Your task to perform on an android device: open sync settings in chrome Image 0: 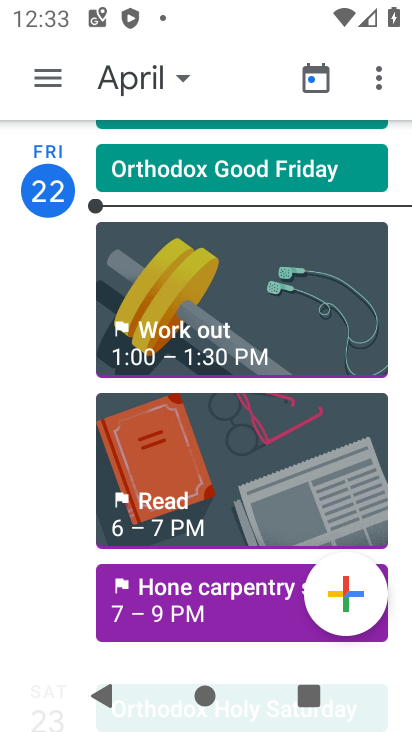
Step 0: press home button
Your task to perform on an android device: open sync settings in chrome Image 1: 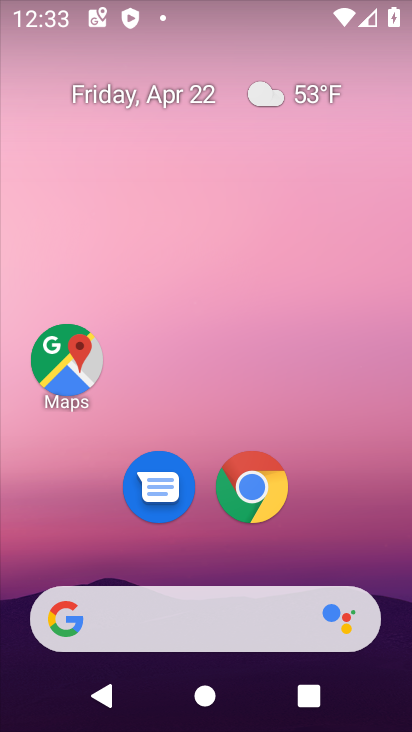
Step 1: click (247, 491)
Your task to perform on an android device: open sync settings in chrome Image 2: 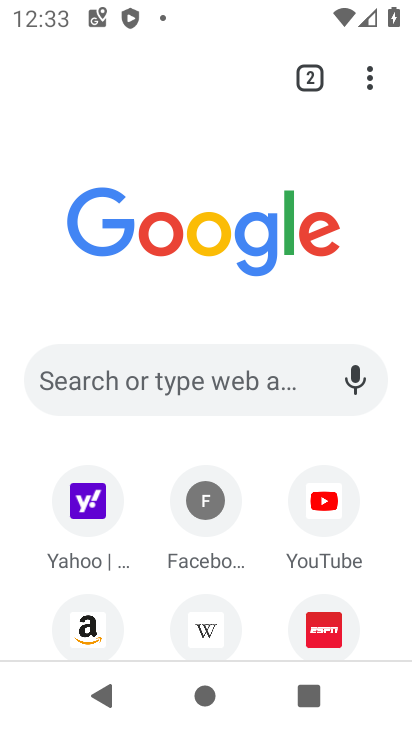
Step 2: drag from (364, 73) to (260, 548)
Your task to perform on an android device: open sync settings in chrome Image 3: 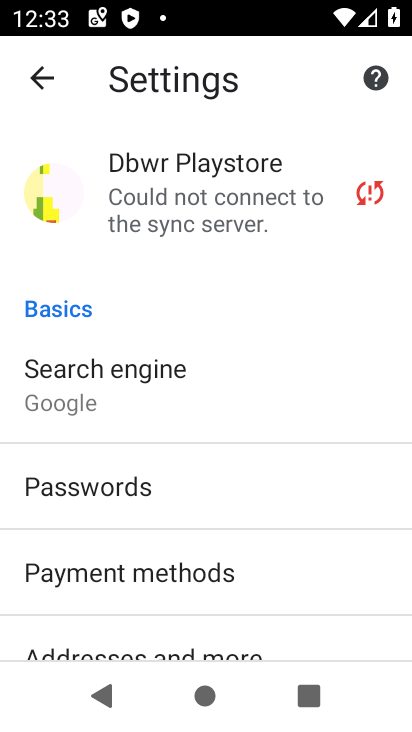
Step 3: drag from (265, 588) to (272, 276)
Your task to perform on an android device: open sync settings in chrome Image 4: 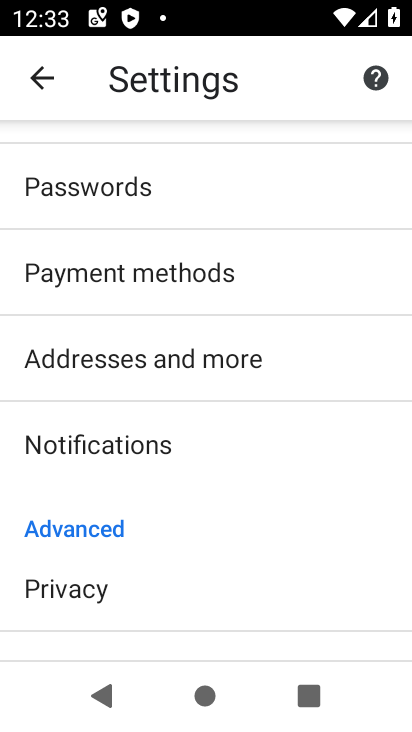
Step 4: drag from (262, 502) to (318, 605)
Your task to perform on an android device: open sync settings in chrome Image 5: 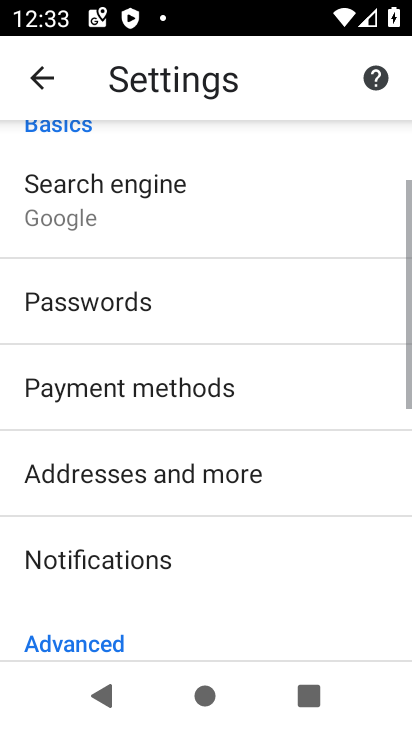
Step 5: drag from (229, 221) to (242, 531)
Your task to perform on an android device: open sync settings in chrome Image 6: 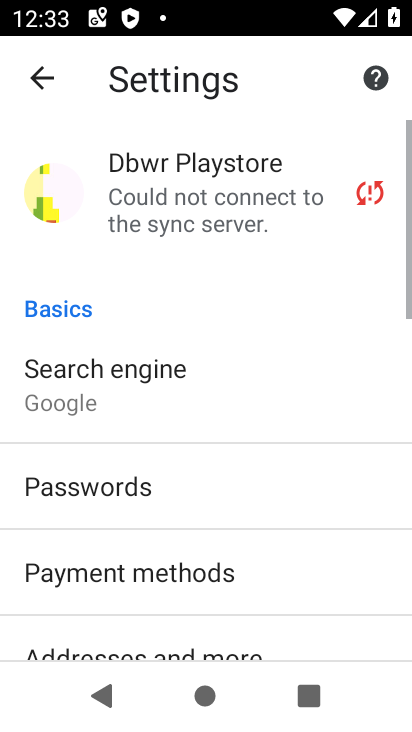
Step 6: click (192, 204)
Your task to perform on an android device: open sync settings in chrome Image 7: 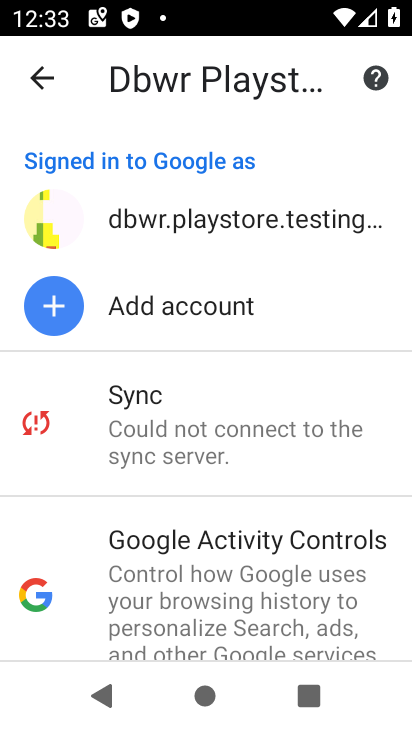
Step 7: click (213, 420)
Your task to perform on an android device: open sync settings in chrome Image 8: 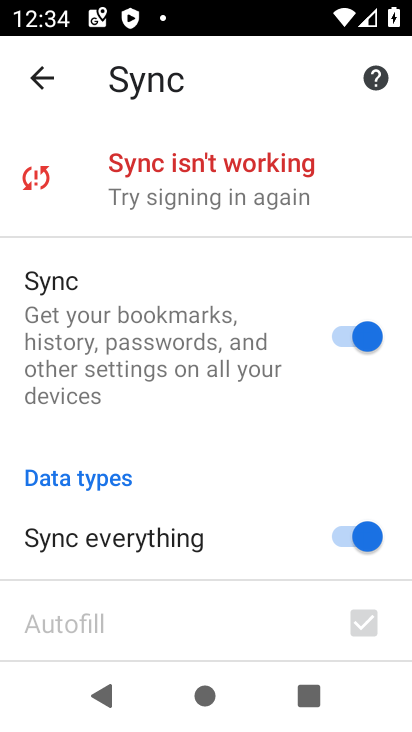
Step 8: task complete